Your task to perform on an android device: Check the weather Image 0: 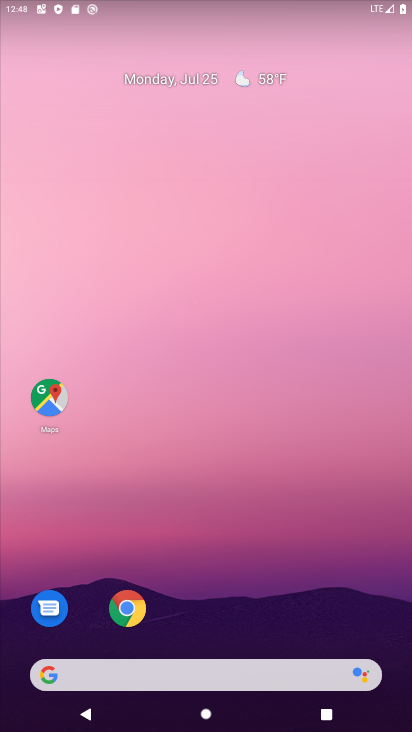
Step 0: drag from (190, 671) to (149, 63)
Your task to perform on an android device: Check the weather Image 1: 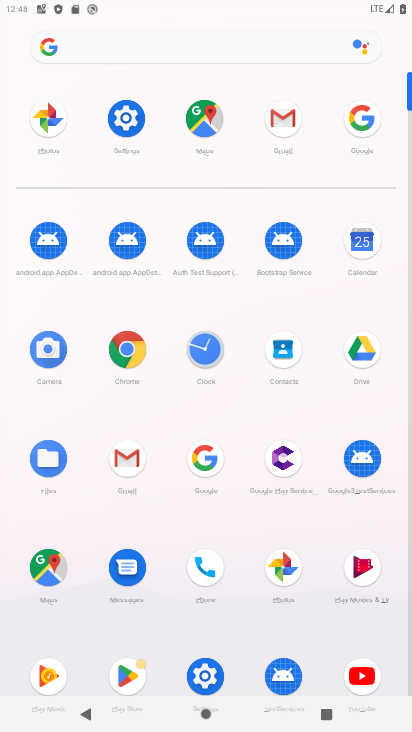
Step 1: click (359, 115)
Your task to perform on an android device: Check the weather Image 2: 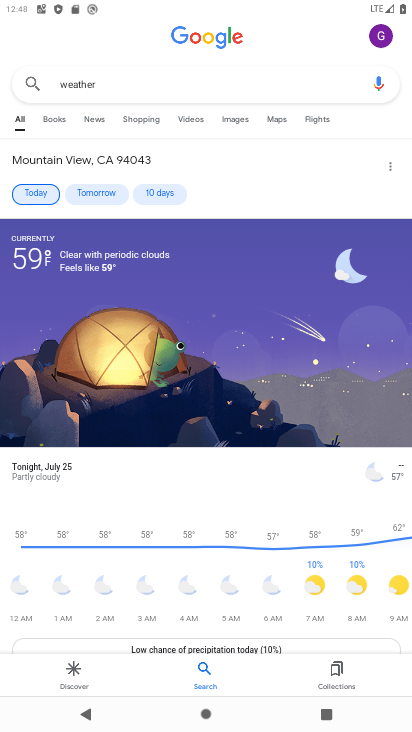
Step 2: task complete